Your task to perform on an android device: Open sound settings Image 0: 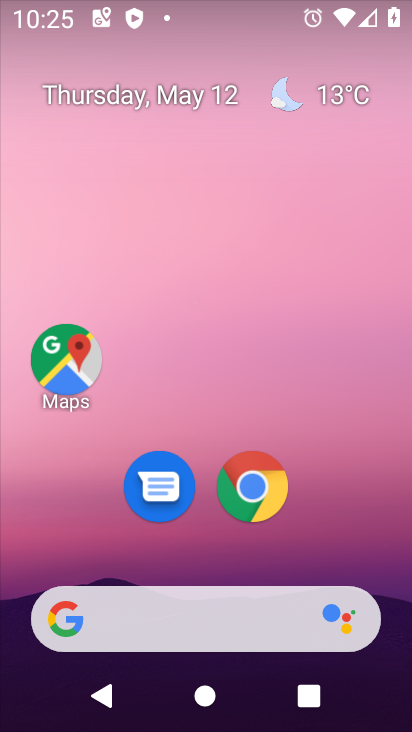
Step 0: drag from (380, 496) to (286, 129)
Your task to perform on an android device: Open sound settings Image 1: 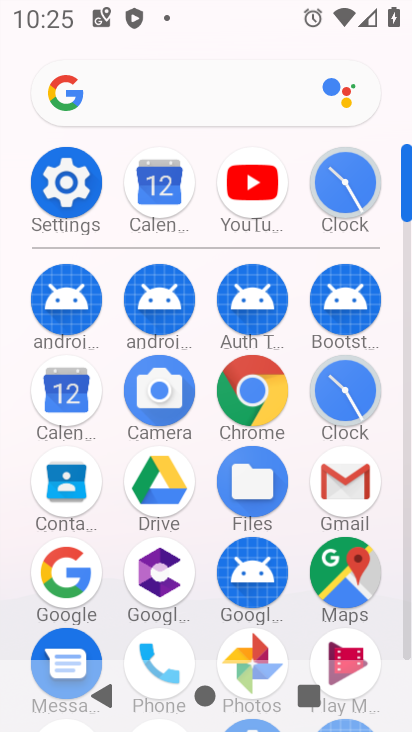
Step 1: drag from (301, 421) to (253, 220)
Your task to perform on an android device: Open sound settings Image 2: 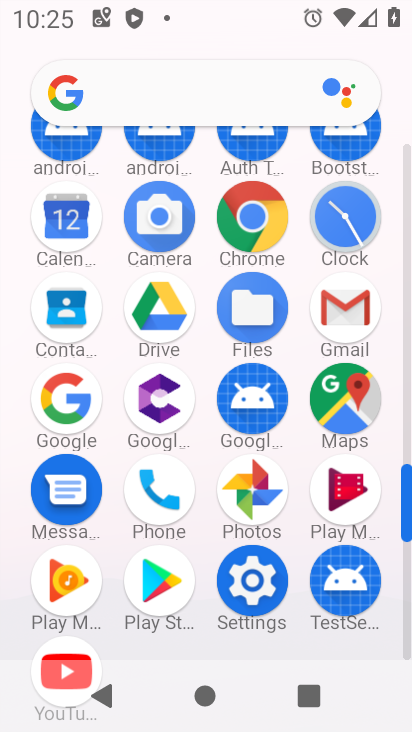
Step 2: click (264, 581)
Your task to perform on an android device: Open sound settings Image 3: 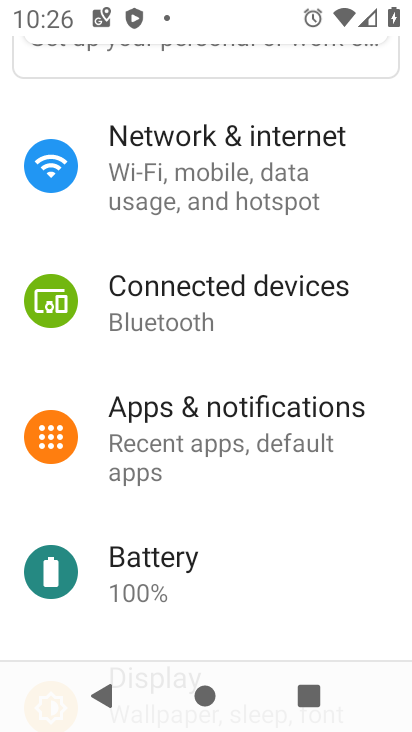
Step 3: drag from (254, 563) to (212, 333)
Your task to perform on an android device: Open sound settings Image 4: 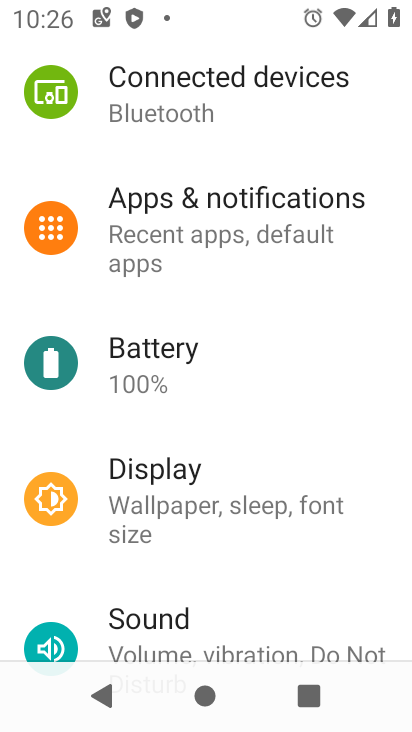
Step 4: drag from (267, 524) to (194, 182)
Your task to perform on an android device: Open sound settings Image 5: 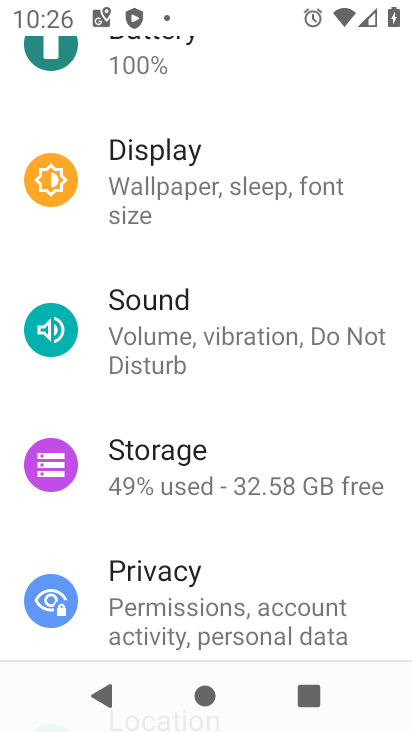
Step 5: click (213, 330)
Your task to perform on an android device: Open sound settings Image 6: 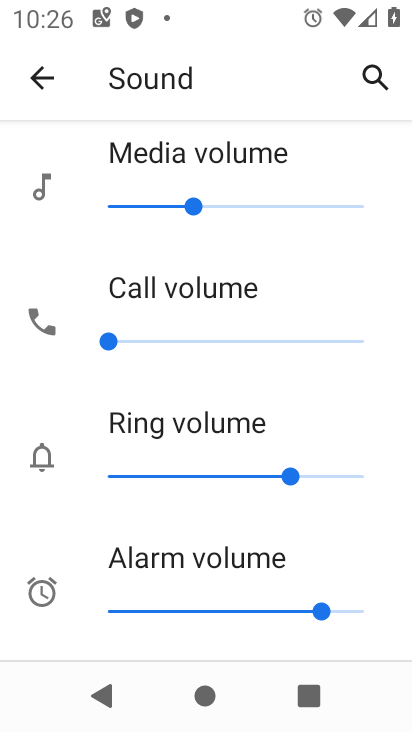
Step 6: task complete